Your task to perform on an android device: Open maps Image 0: 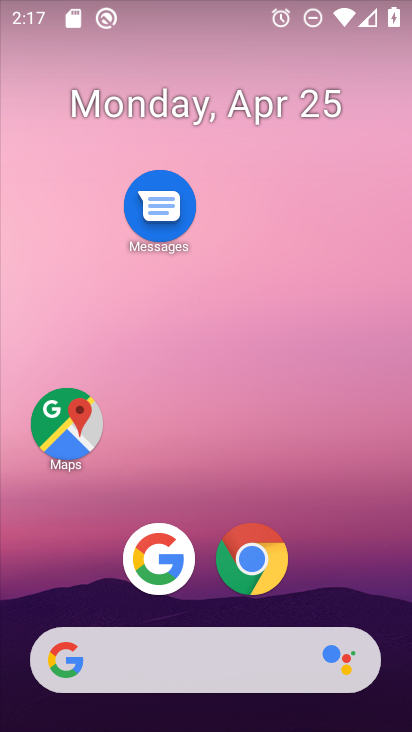
Step 0: click (71, 433)
Your task to perform on an android device: Open maps Image 1: 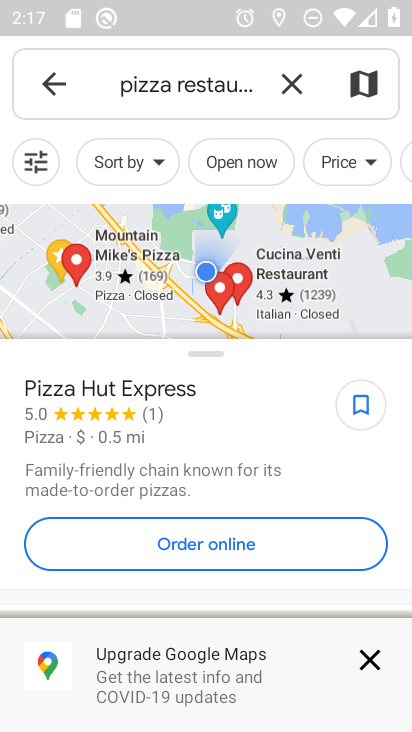
Step 1: task complete